Your task to perform on an android device: toggle translation in the chrome app Image 0: 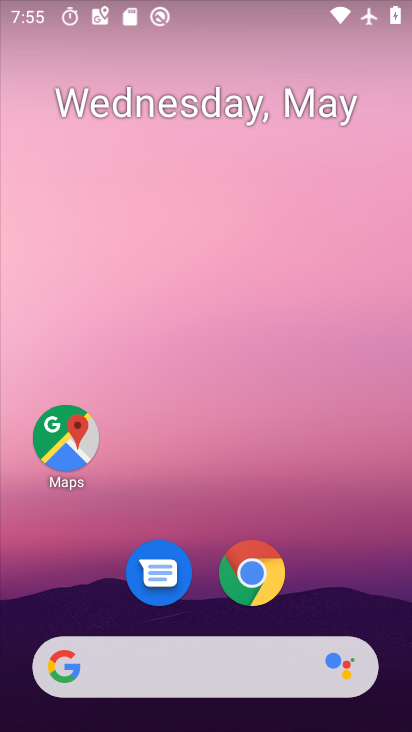
Step 0: click (236, 573)
Your task to perform on an android device: toggle translation in the chrome app Image 1: 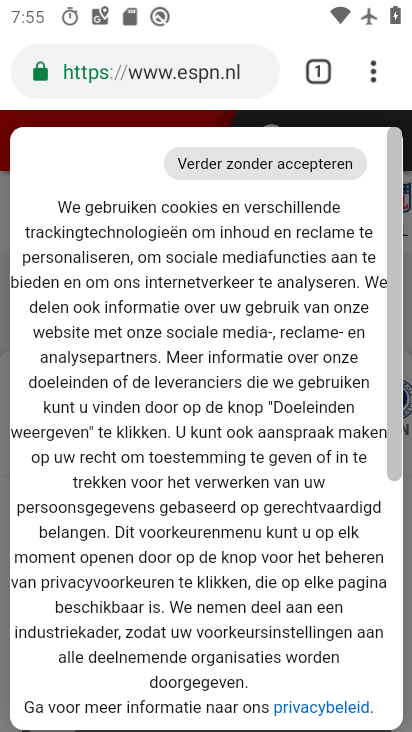
Step 1: click (364, 70)
Your task to perform on an android device: toggle translation in the chrome app Image 2: 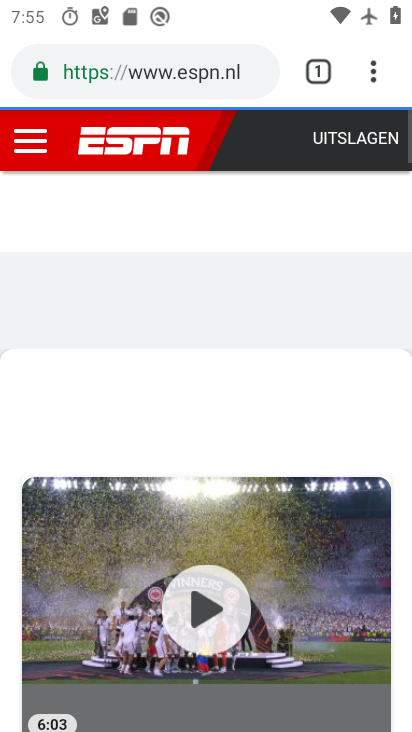
Step 2: click (374, 78)
Your task to perform on an android device: toggle translation in the chrome app Image 3: 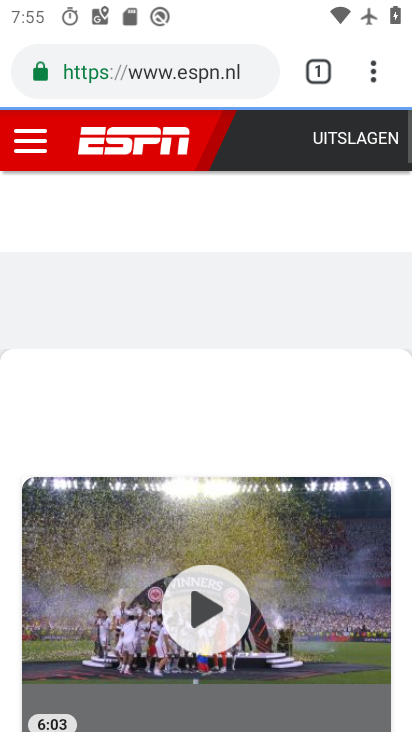
Step 3: click (375, 79)
Your task to perform on an android device: toggle translation in the chrome app Image 4: 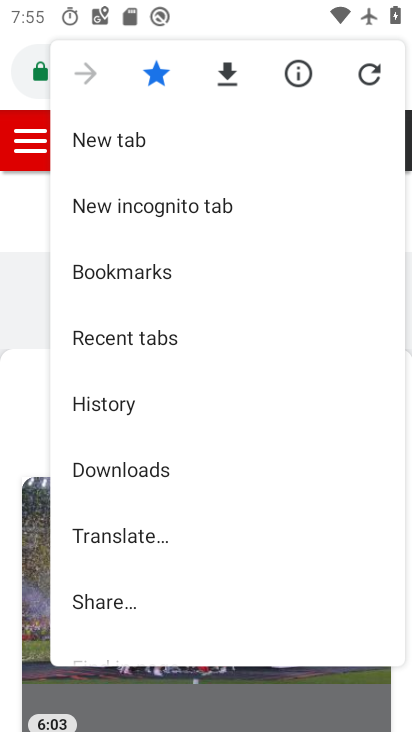
Step 4: drag from (210, 621) to (169, 268)
Your task to perform on an android device: toggle translation in the chrome app Image 5: 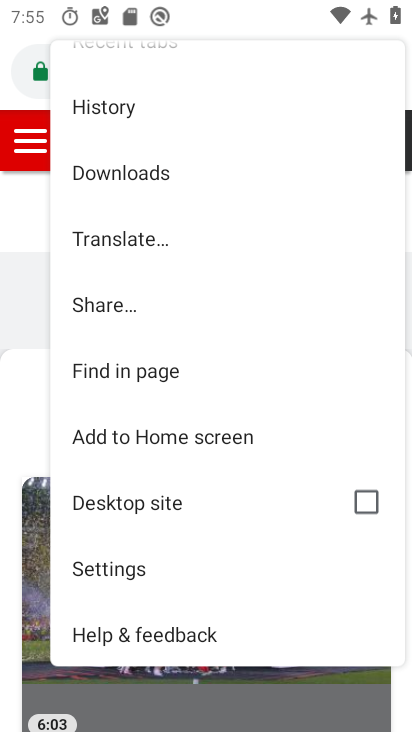
Step 5: click (169, 577)
Your task to perform on an android device: toggle translation in the chrome app Image 6: 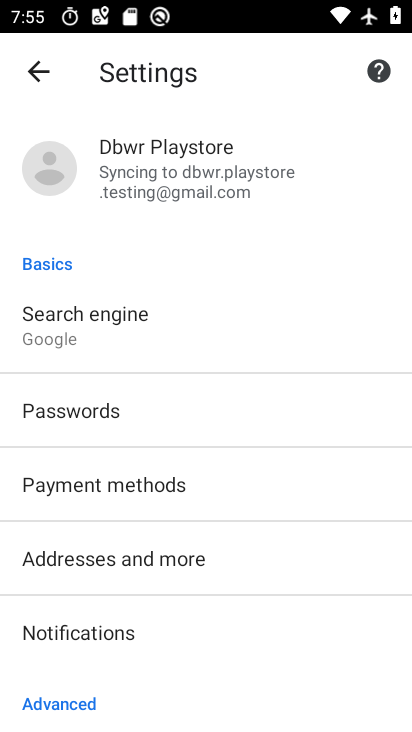
Step 6: drag from (156, 649) to (126, 349)
Your task to perform on an android device: toggle translation in the chrome app Image 7: 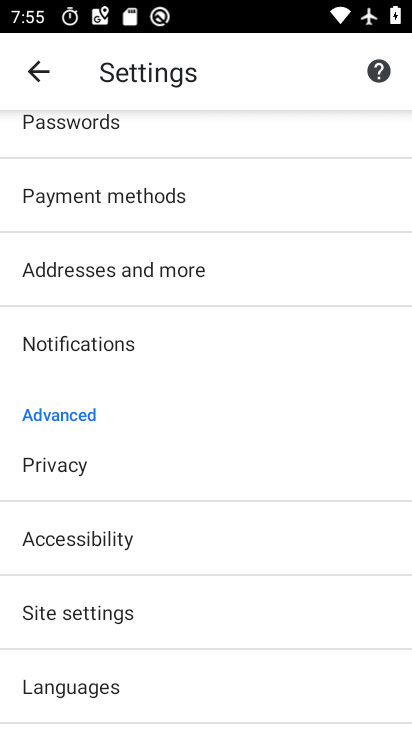
Step 7: click (185, 665)
Your task to perform on an android device: toggle translation in the chrome app Image 8: 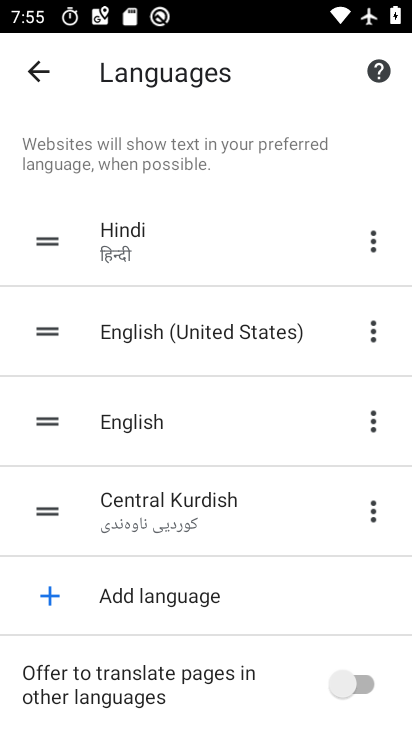
Step 8: click (380, 671)
Your task to perform on an android device: toggle translation in the chrome app Image 9: 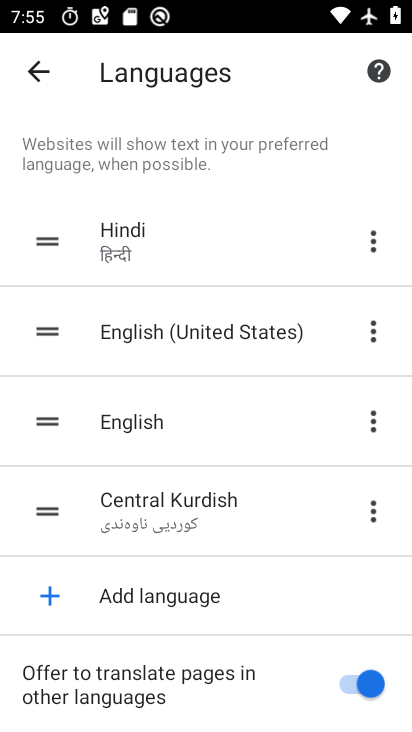
Step 9: task complete